Your task to perform on an android device: Open Google Chrome and click the shortcut for Amazon.com Image 0: 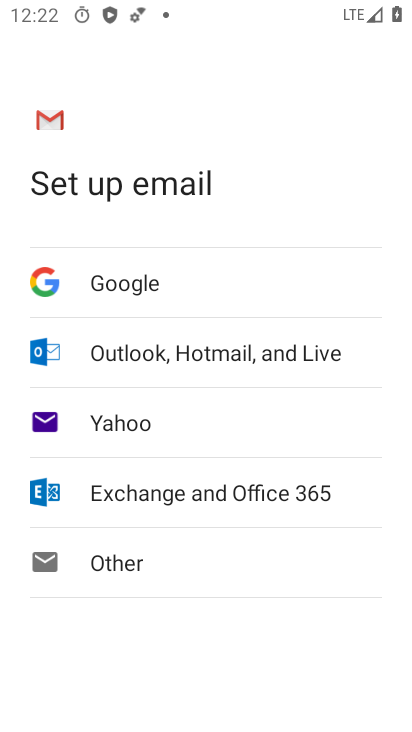
Step 0: press back button
Your task to perform on an android device: Open Google Chrome and click the shortcut for Amazon.com Image 1: 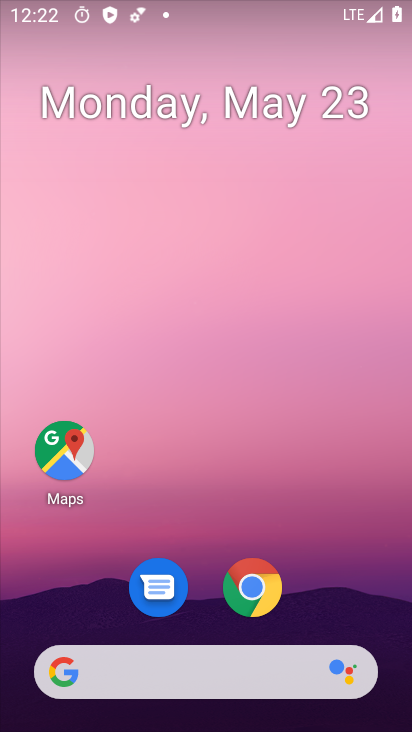
Step 1: click (250, 589)
Your task to perform on an android device: Open Google Chrome and click the shortcut for Amazon.com Image 2: 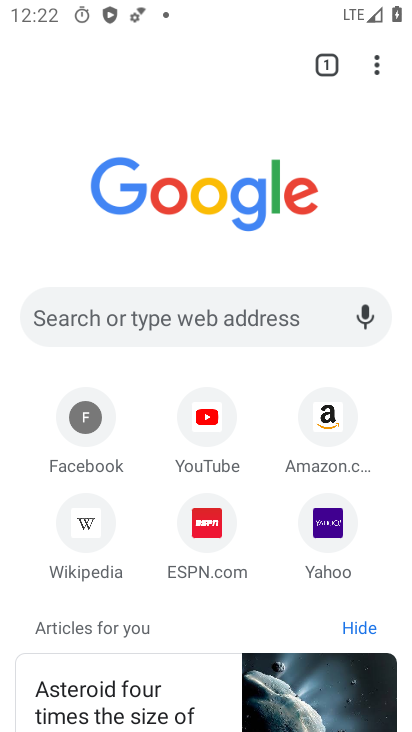
Step 2: click (333, 421)
Your task to perform on an android device: Open Google Chrome and click the shortcut for Amazon.com Image 3: 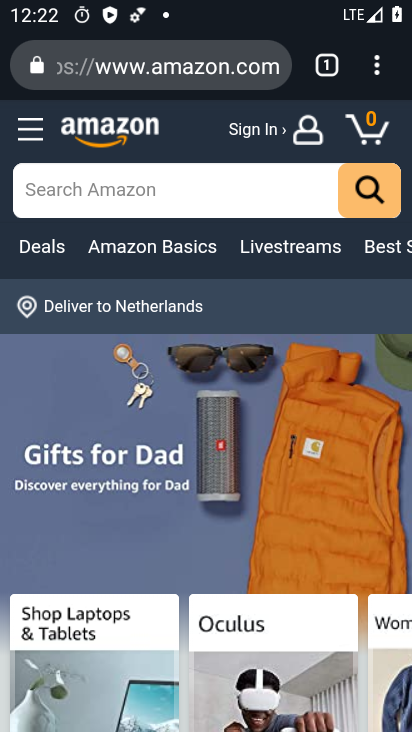
Step 3: task complete